Your task to perform on an android device: toggle airplane mode Image 0: 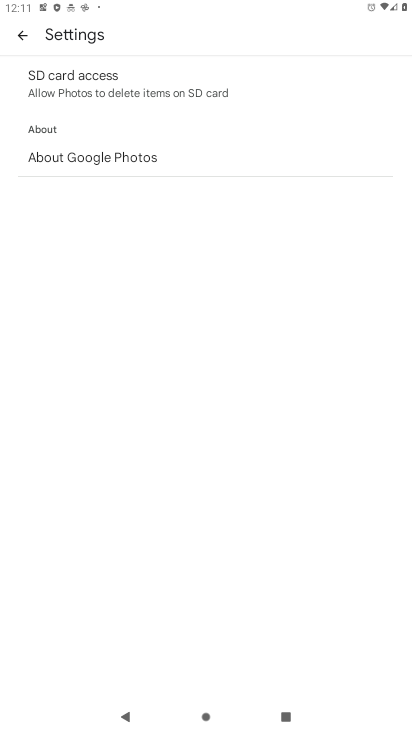
Step 0: task complete